Your task to perform on an android device: Is it going to rain tomorrow? Image 0: 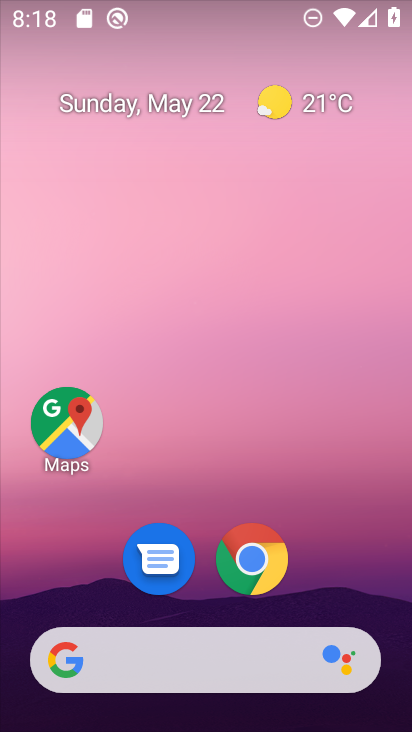
Step 0: press home button
Your task to perform on an android device: Is it going to rain tomorrow? Image 1: 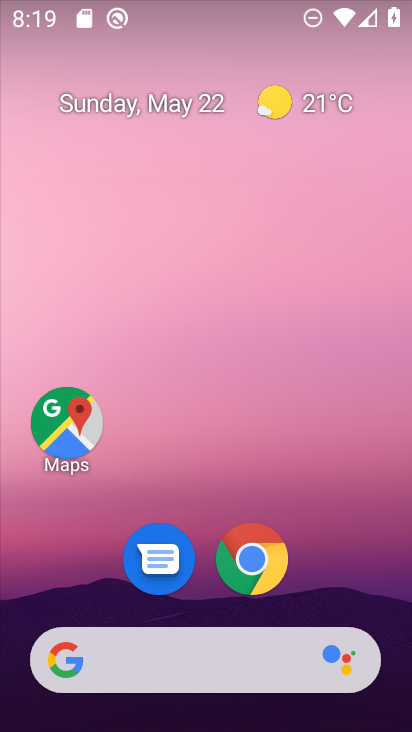
Step 1: drag from (313, 695) to (214, 205)
Your task to perform on an android device: Is it going to rain tomorrow? Image 2: 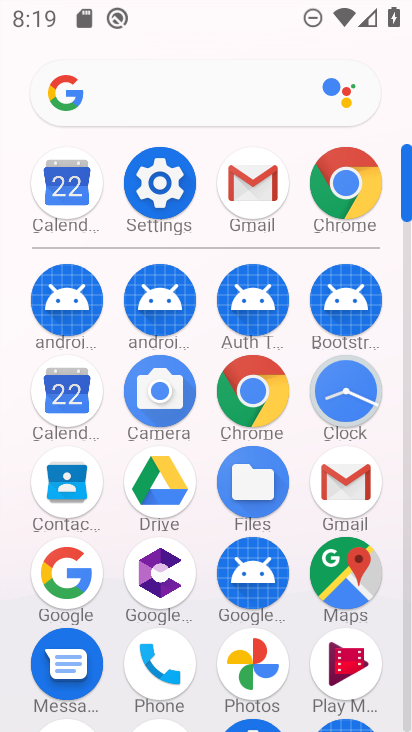
Step 2: click (132, 108)
Your task to perform on an android device: Is it going to rain tomorrow? Image 3: 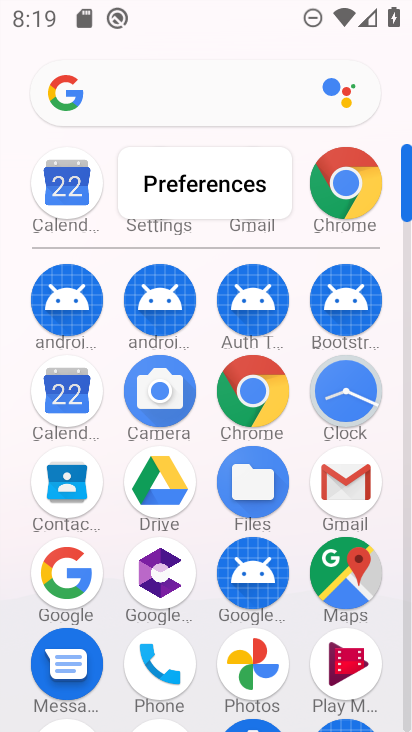
Step 3: click (147, 93)
Your task to perform on an android device: Is it going to rain tomorrow? Image 4: 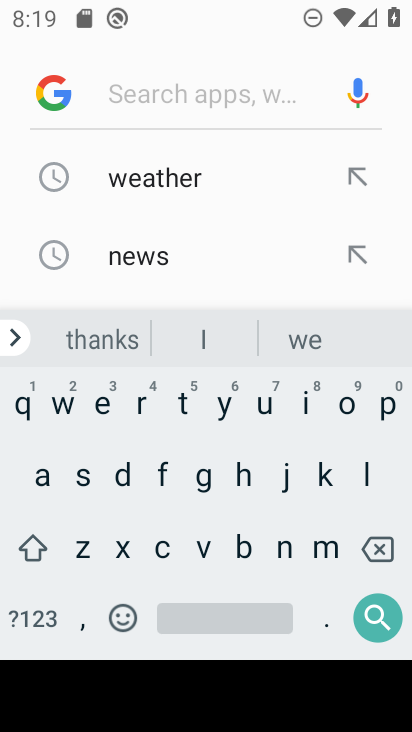
Step 4: click (189, 174)
Your task to perform on an android device: Is it going to rain tomorrow? Image 5: 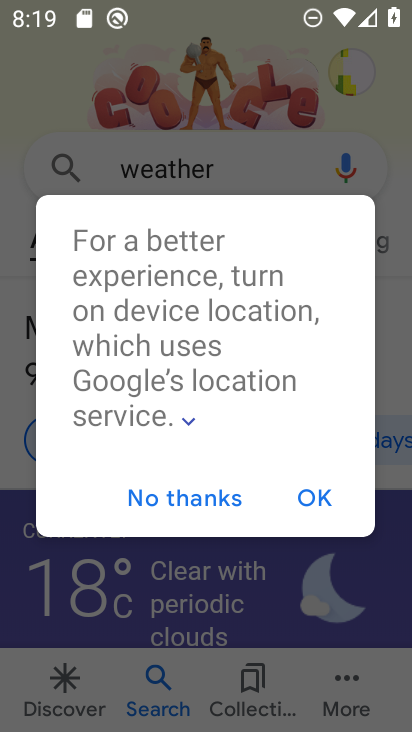
Step 5: click (186, 502)
Your task to perform on an android device: Is it going to rain tomorrow? Image 6: 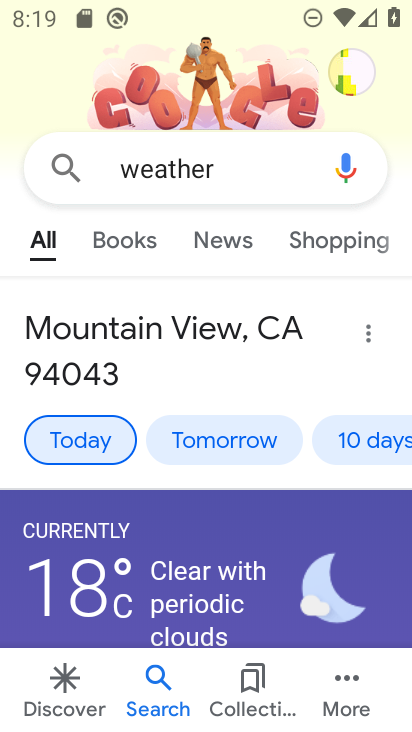
Step 6: click (220, 439)
Your task to perform on an android device: Is it going to rain tomorrow? Image 7: 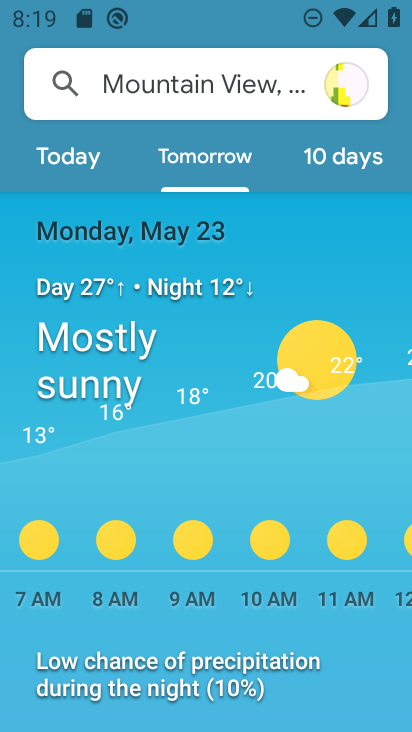
Step 7: task complete